Your task to perform on an android device: Check the weather Image 0: 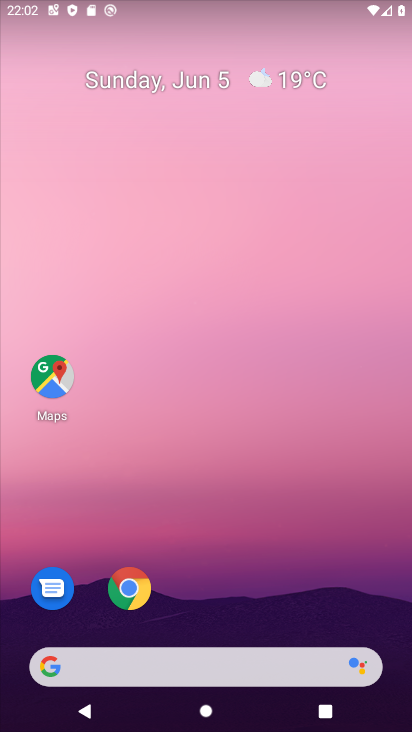
Step 0: click (292, 86)
Your task to perform on an android device: Check the weather Image 1: 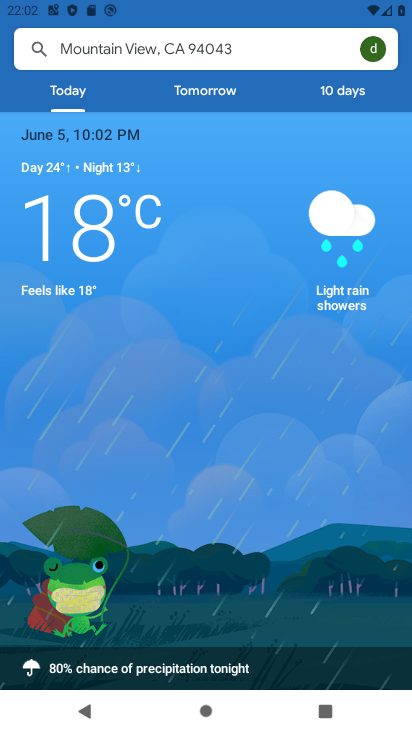
Step 1: task complete